Your task to perform on an android device: set the timer Image 0: 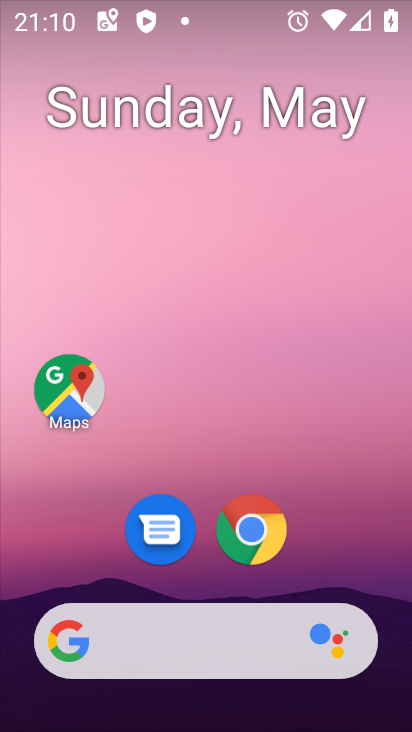
Step 0: drag from (366, 589) to (333, 2)
Your task to perform on an android device: set the timer Image 1: 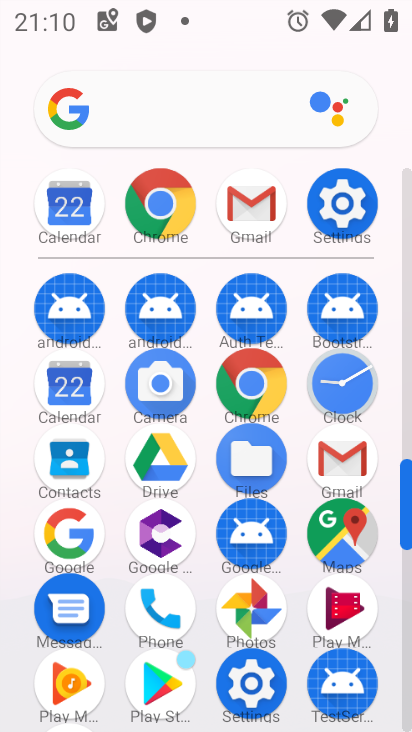
Step 1: click (348, 385)
Your task to perform on an android device: set the timer Image 2: 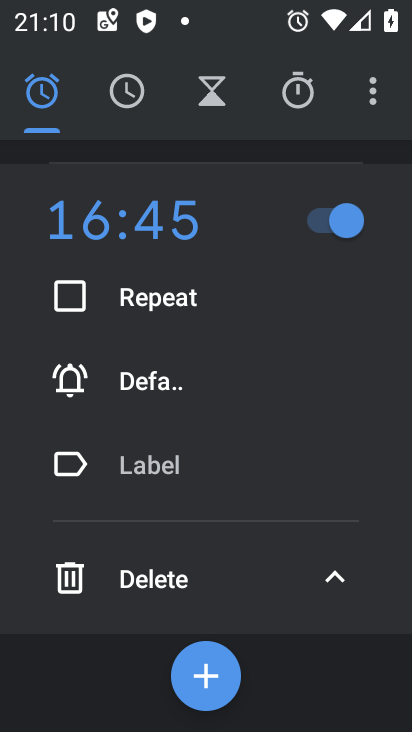
Step 2: click (217, 101)
Your task to perform on an android device: set the timer Image 3: 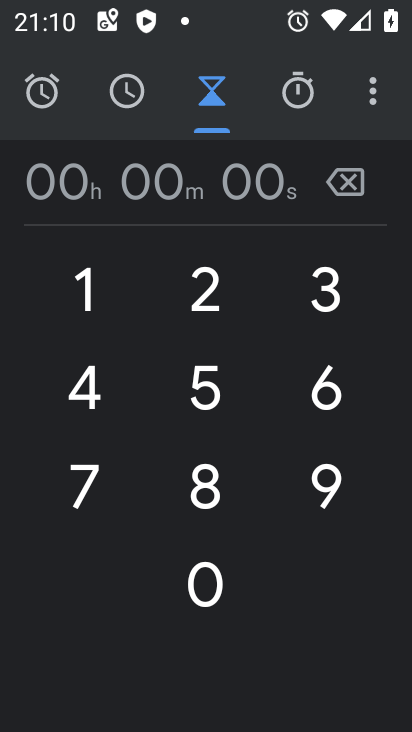
Step 3: click (327, 488)
Your task to perform on an android device: set the timer Image 4: 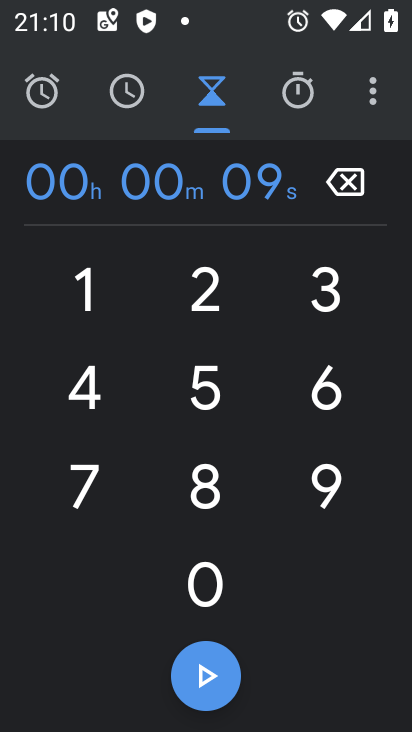
Step 4: click (224, 588)
Your task to perform on an android device: set the timer Image 5: 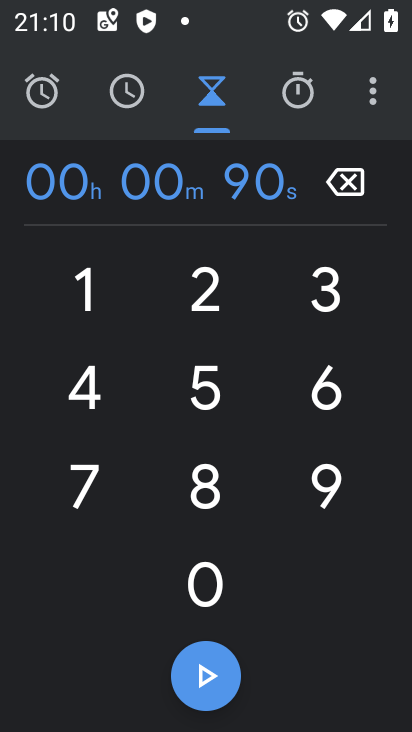
Step 5: click (213, 667)
Your task to perform on an android device: set the timer Image 6: 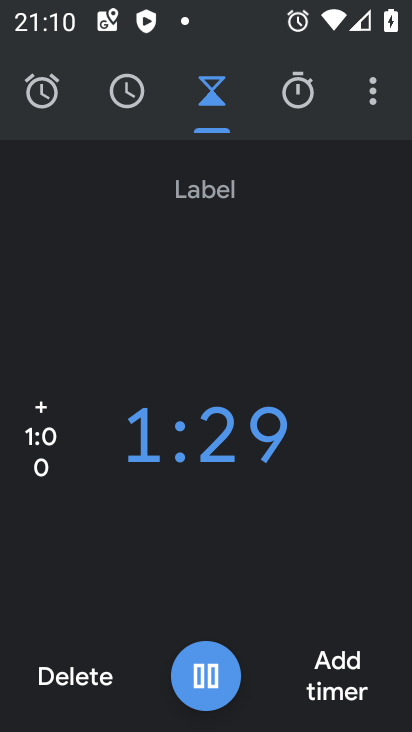
Step 6: task complete